Your task to perform on an android device: What's on my calendar tomorrow? Image 0: 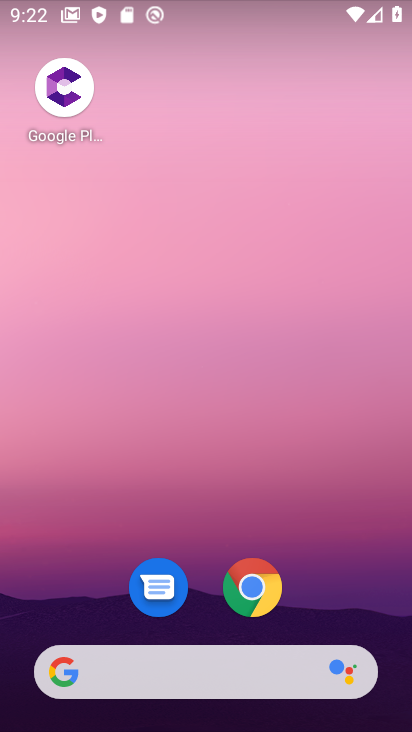
Step 0: drag from (266, 705) to (239, 168)
Your task to perform on an android device: What's on my calendar tomorrow? Image 1: 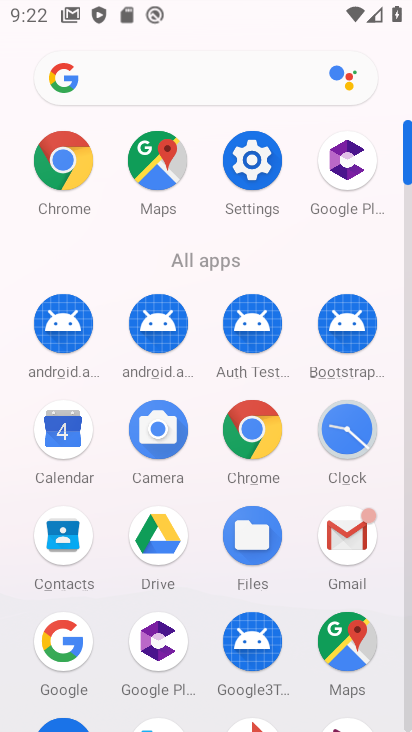
Step 1: click (67, 444)
Your task to perform on an android device: What's on my calendar tomorrow? Image 2: 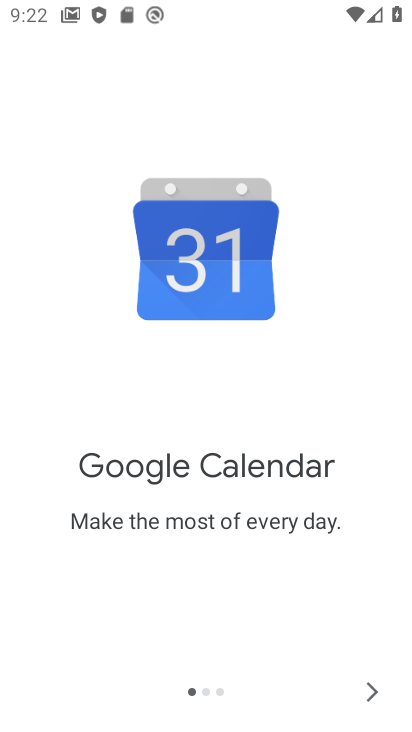
Step 2: click (363, 700)
Your task to perform on an android device: What's on my calendar tomorrow? Image 3: 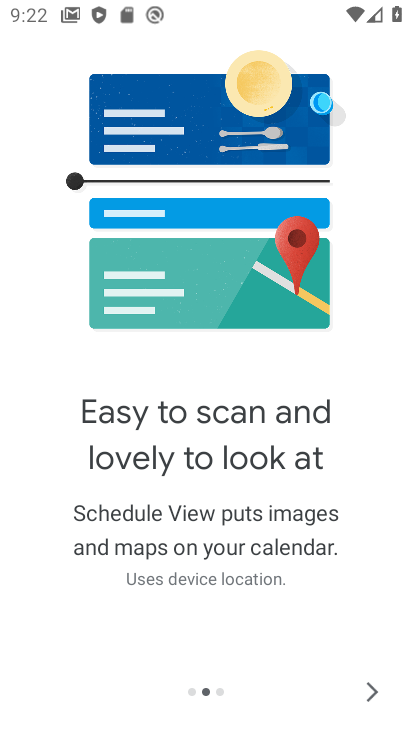
Step 3: click (364, 683)
Your task to perform on an android device: What's on my calendar tomorrow? Image 4: 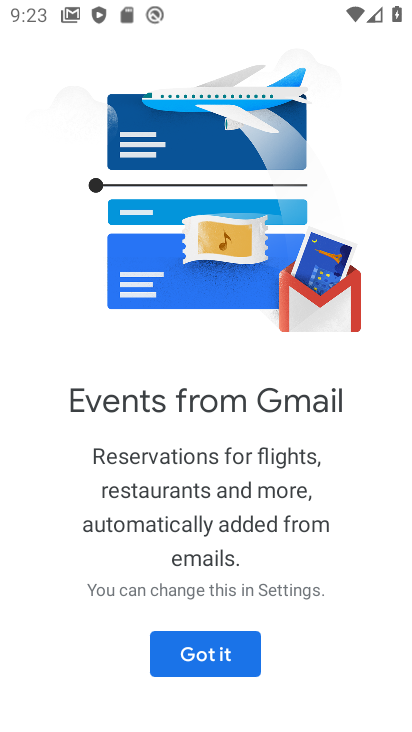
Step 4: click (219, 652)
Your task to perform on an android device: What's on my calendar tomorrow? Image 5: 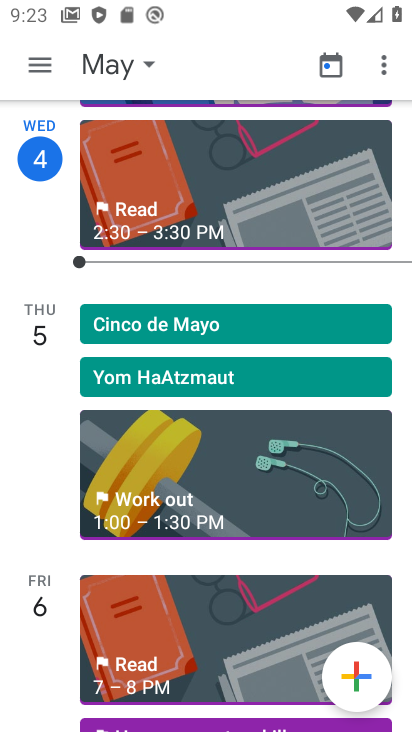
Step 5: click (40, 319)
Your task to perform on an android device: What's on my calendar tomorrow? Image 6: 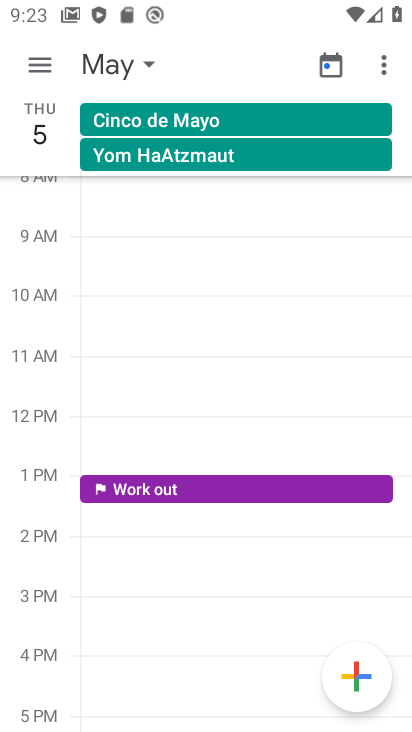
Step 6: task complete